Your task to perform on an android device: Go to Maps Image 0: 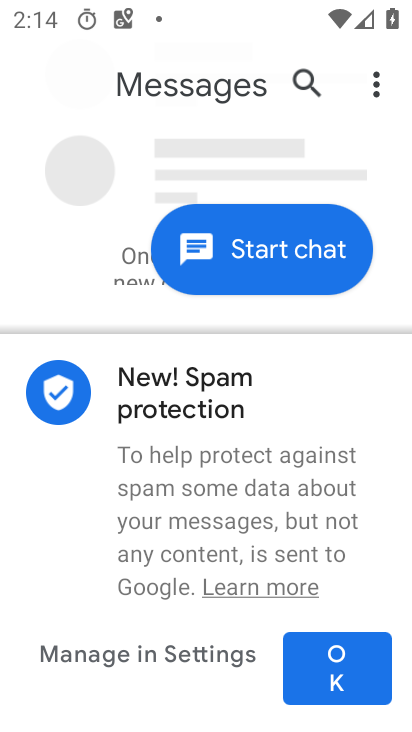
Step 0: press home button
Your task to perform on an android device: Go to Maps Image 1: 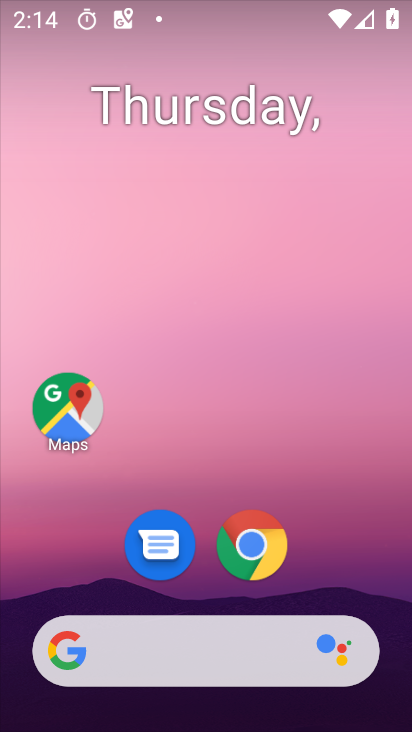
Step 1: drag from (208, 668) to (208, 153)
Your task to perform on an android device: Go to Maps Image 2: 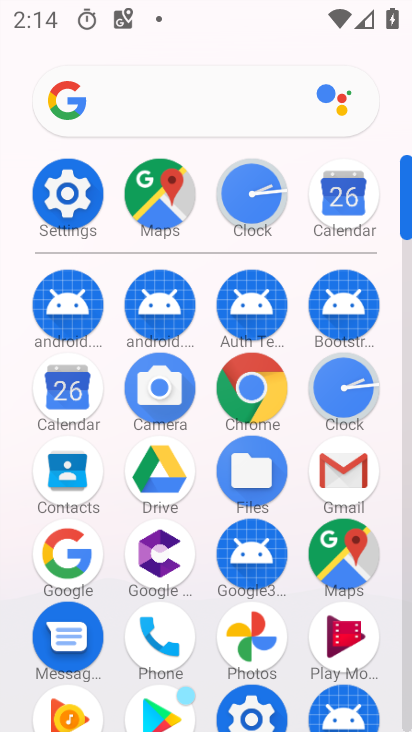
Step 2: click (341, 540)
Your task to perform on an android device: Go to Maps Image 3: 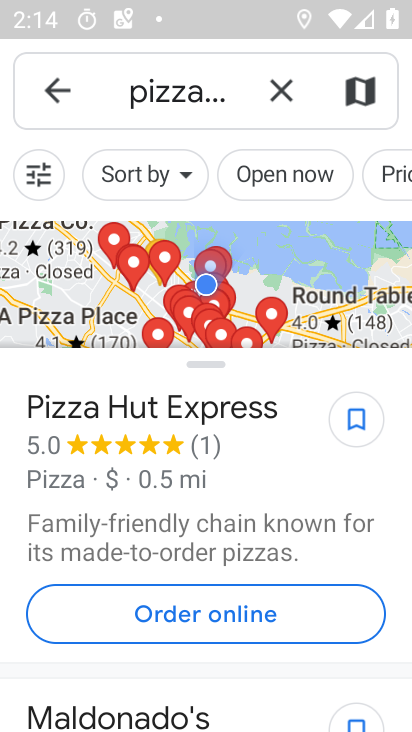
Step 3: task complete